Your task to perform on an android device: toggle wifi Image 0: 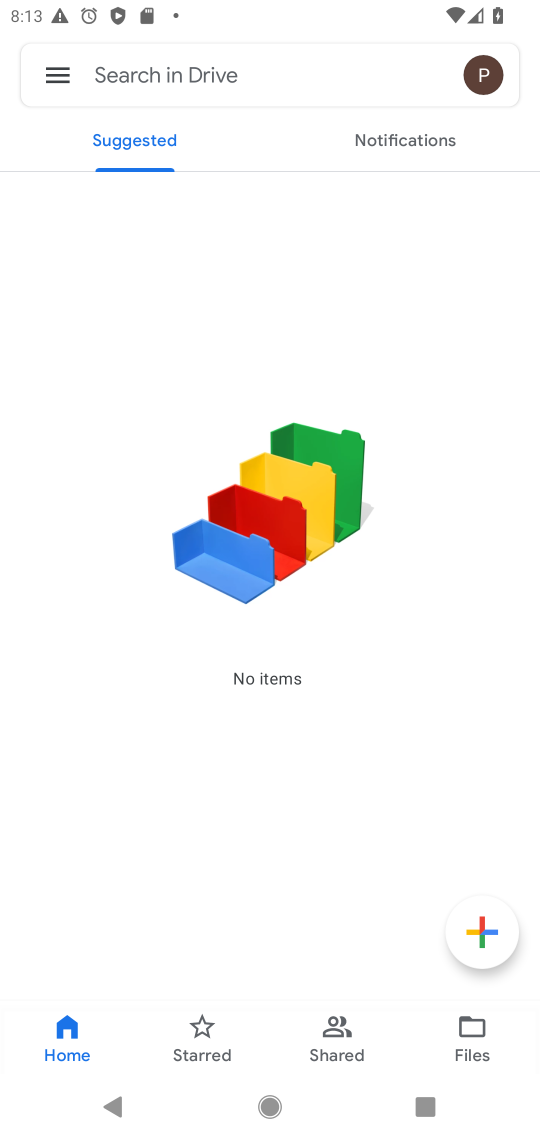
Step 0: press home button
Your task to perform on an android device: toggle wifi Image 1: 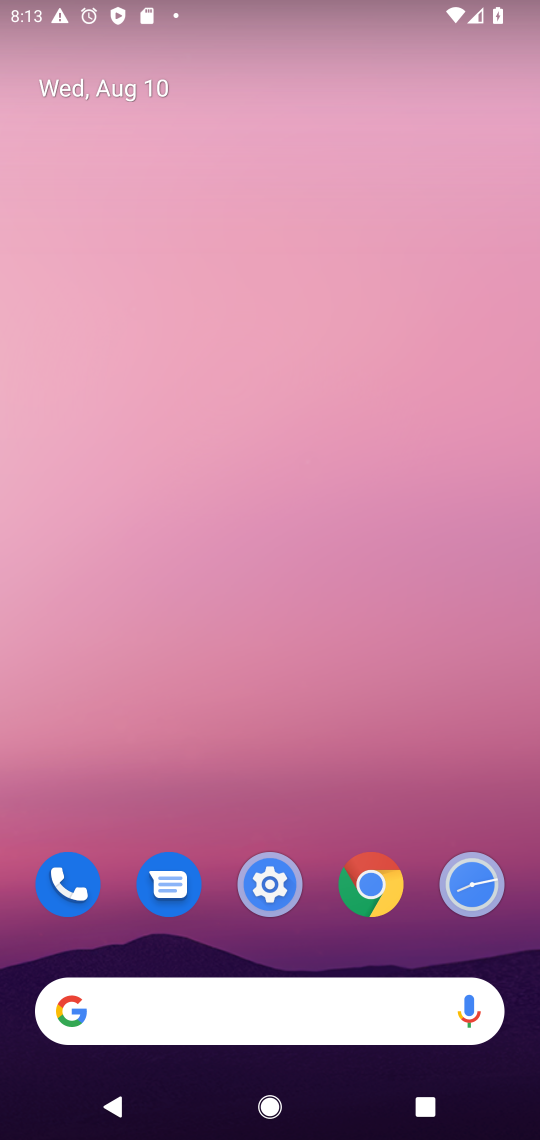
Step 1: click (273, 881)
Your task to perform on an android device: toggle wifi Image 2: 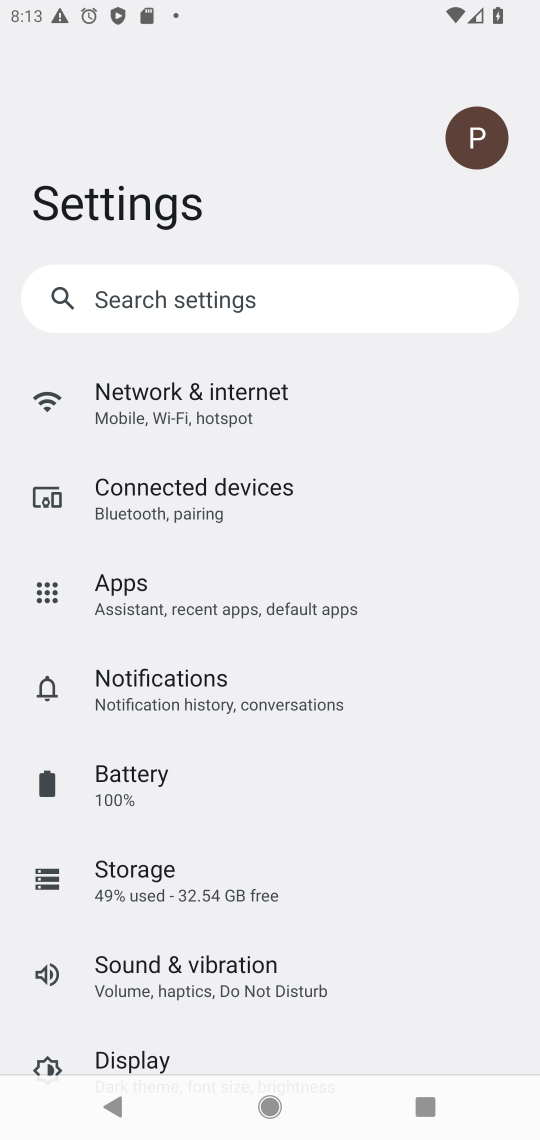
Step 2: click (190, 391)
Your task to perform on an android device: toggle wifi Image 3: 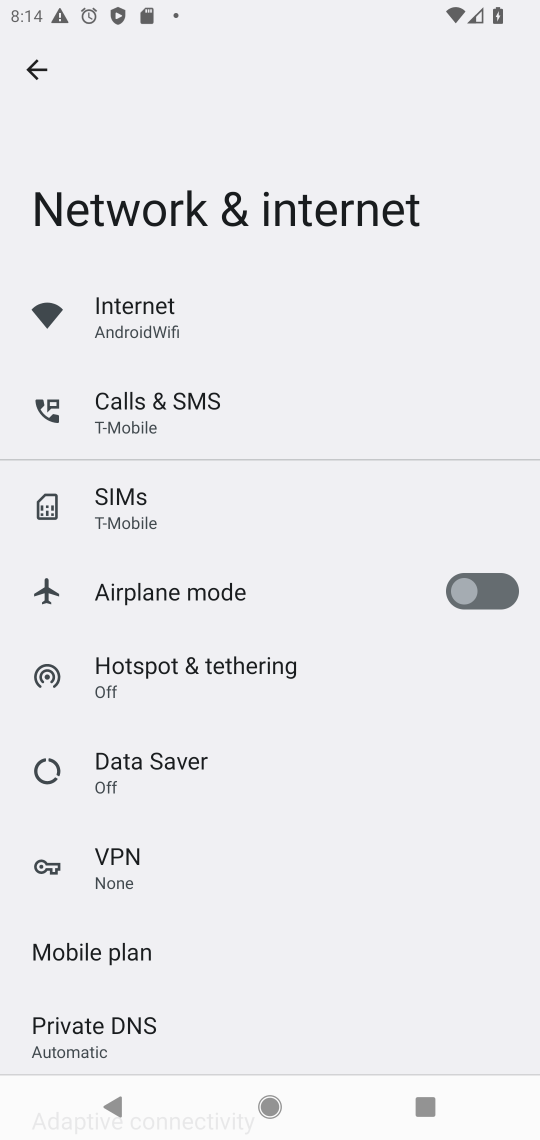
Step 3: click (167, 304)
Your task to perform on an android device: toggle wifi Image 4: 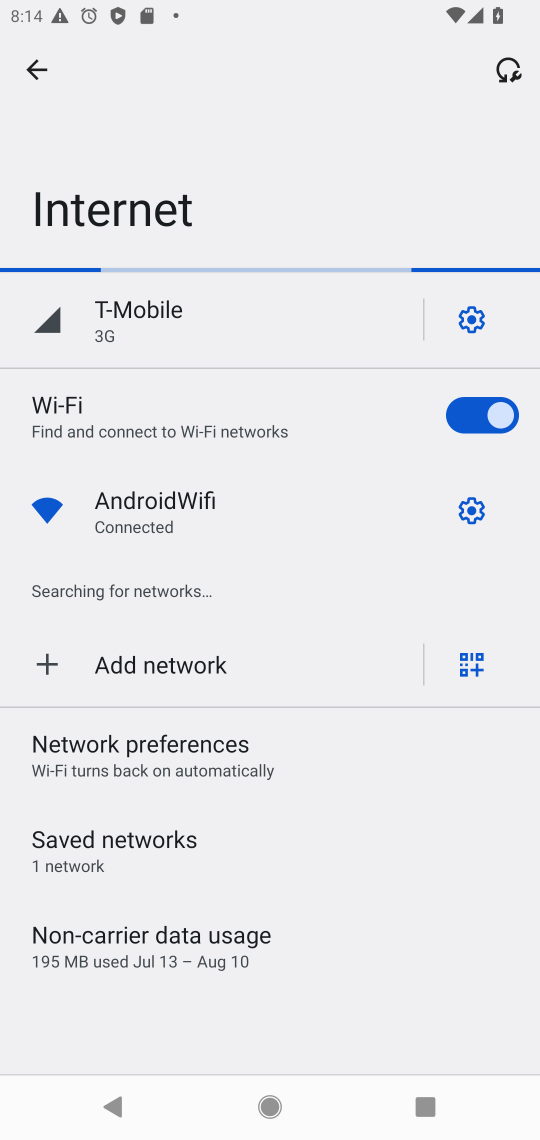
Step 4: task complete